Your task to perform on an android device: Open CNN.com Image 0: 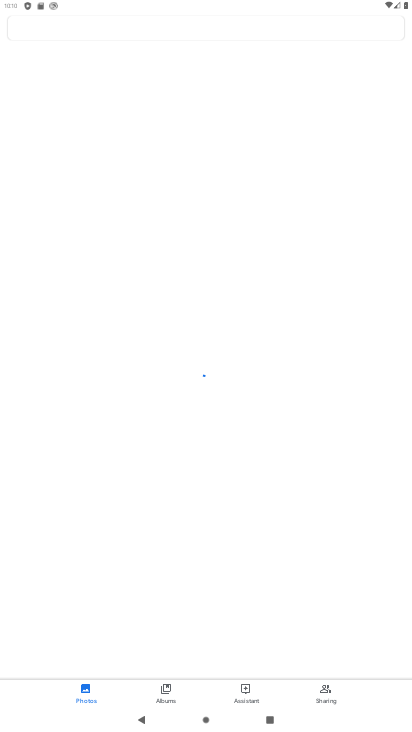
Step 0: press home button
Your task to perform on an android device: Open CNN.com Image 1: 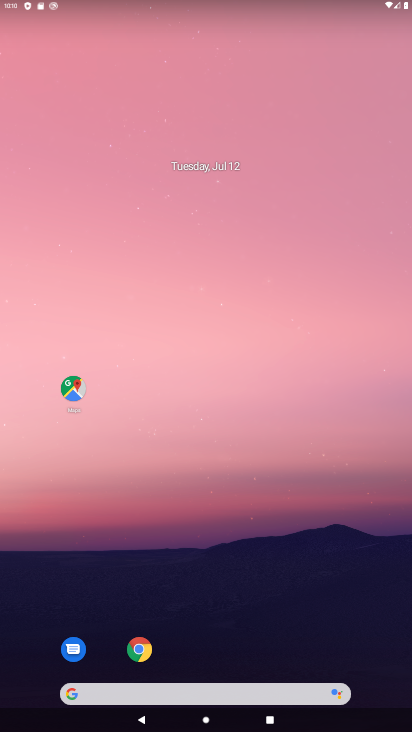
Step 1: click (139, 651)
Your task to perform on an android device: Open CNN.com Image 2: 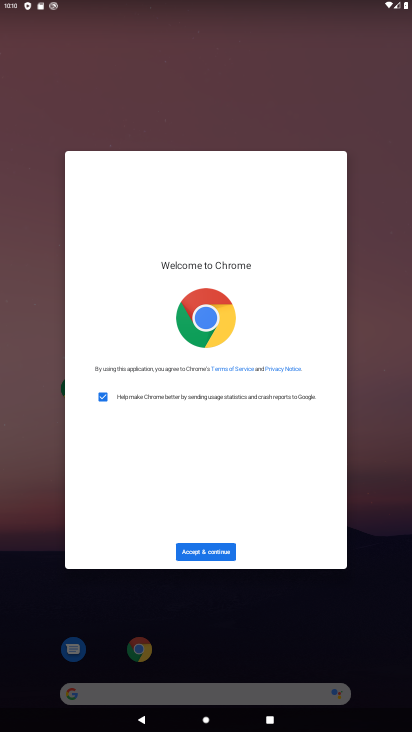
Step 2: click (205, 556)
Your task to perform on an android device: Open CNN.com Image 3: 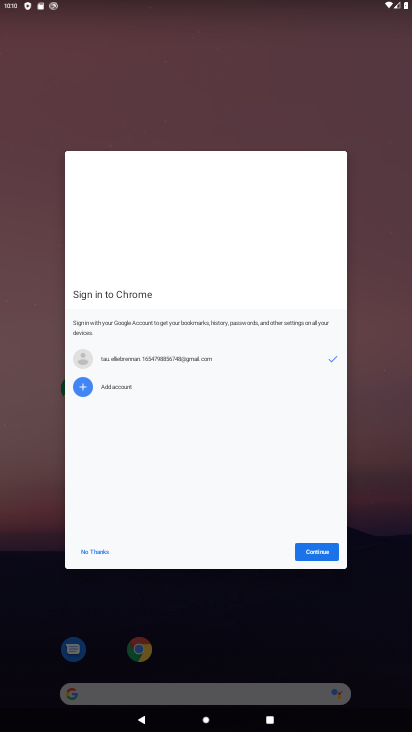
Step 3: click (315, 551)
Your task to perform on an android device: Open CNN.com Image 4: 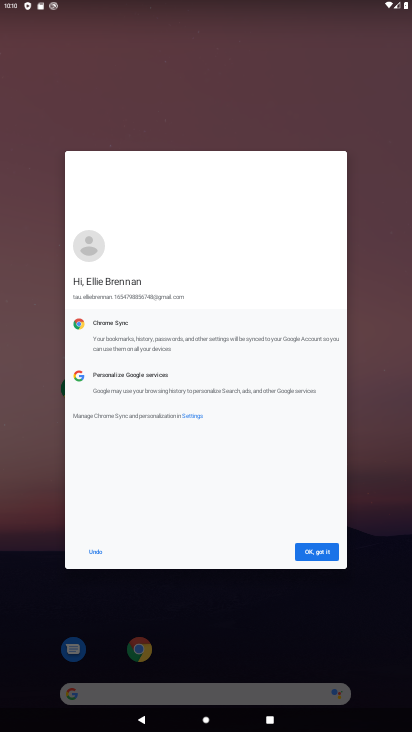
Step 4: click (315, 551)
Your task to perform on an android device: Open CNN.com Image 5: 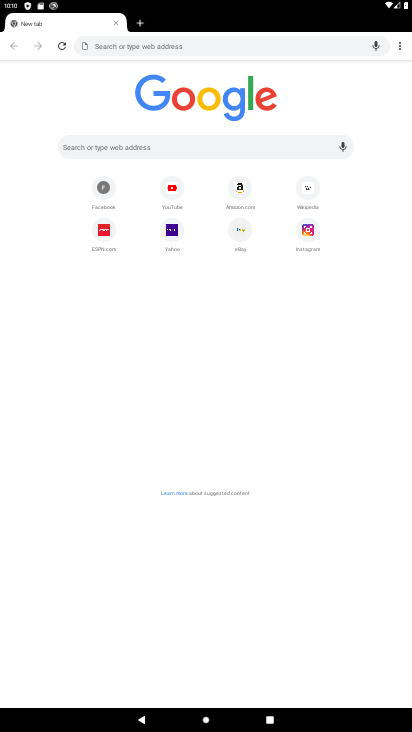
Step 5: click (125, 42)
Your task to perform on an android device: Open CNN.com Image 6: 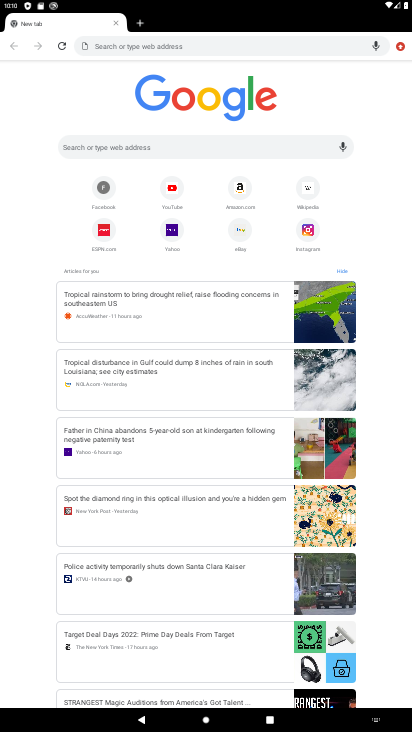
Step 6: type "CNN.com"
Your task to perform on an android device: Open CNN.com Image 7: 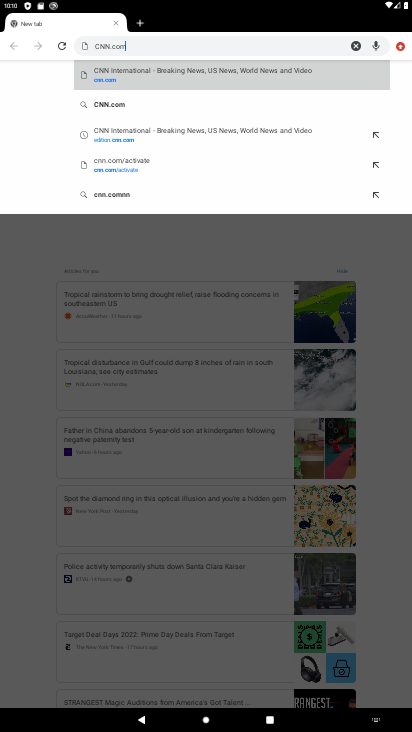
Step 7: click (122, 74)
Your task to perform on an android device: Open CNN.com Image 8: 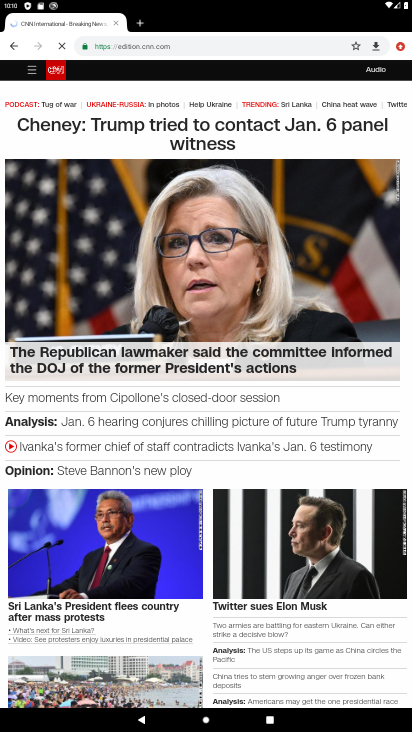
Step 8: task complete